Your task to perform on an android device: change the clock display to analog Image 0: 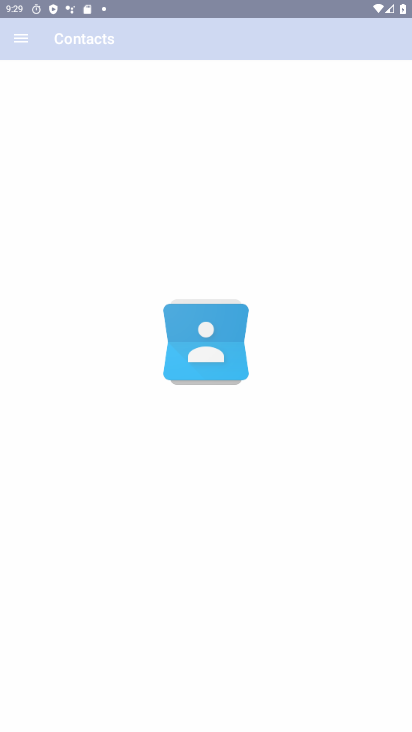
Step 0: drag from (332, 445) to (356, 211)
Your task to perform on an android device: change the clock display to analog Image 1: 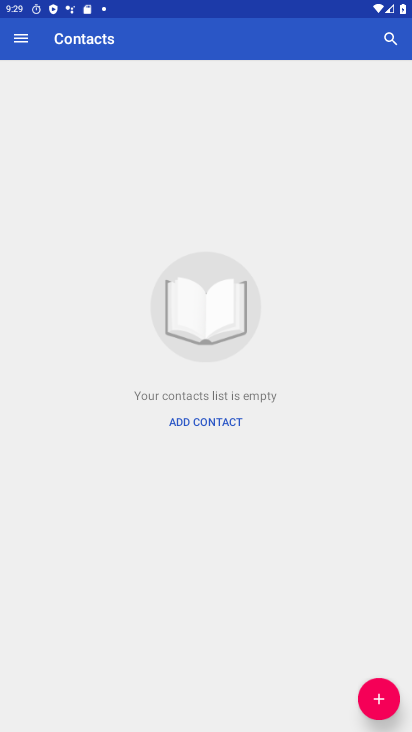
Step 1: press back button
Your task to perform on an android device: change the clock display to analog Image 2: 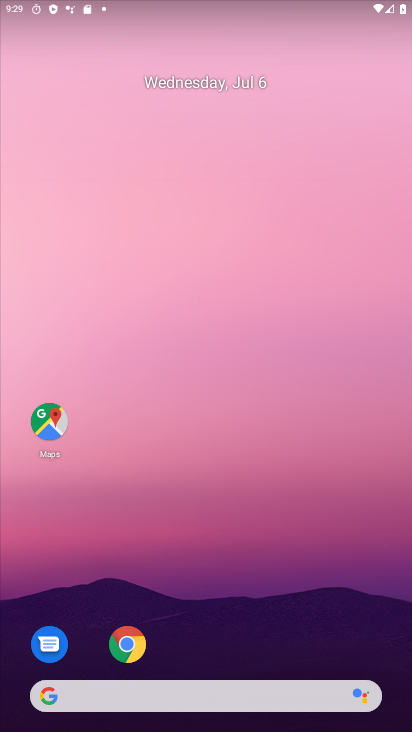
Step 2: drag from (264, 707) to (217, 143)
Your task to perform on an android device: change the clock display to analog Image 3: 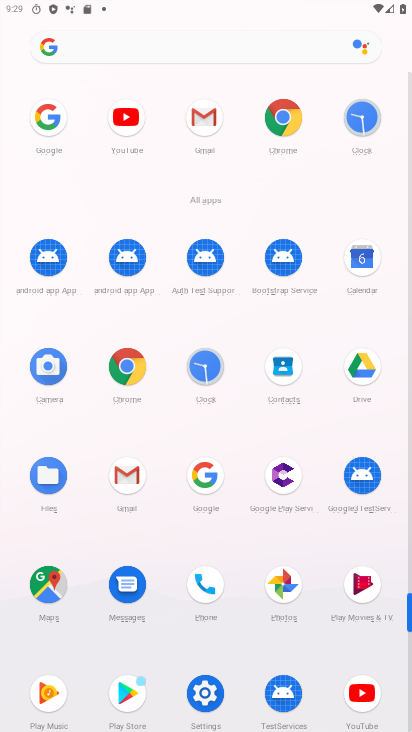
Step 3: click (204, 362)
Your task to perform on an android device: change the clock display to analog Image 4: 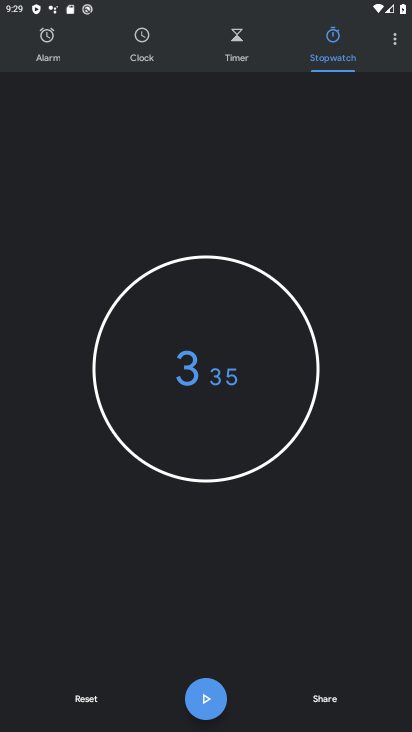
Step 4: press back button
Your task to perform on an android device: change the clock display to analog Image 5: 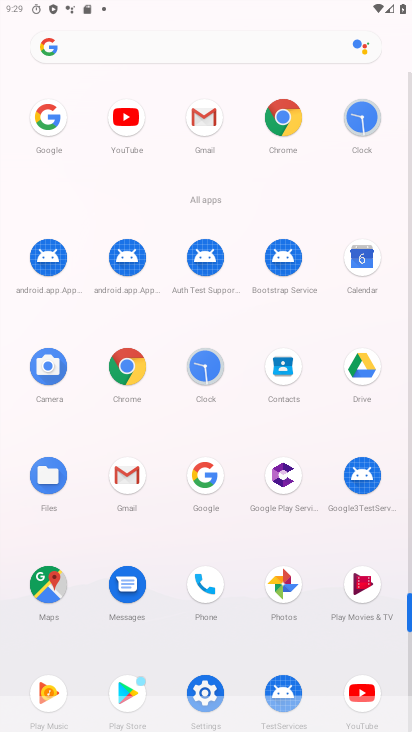
Step 5: click (200, 363)
Your task to perform on an android device: change the clock display to analog Image 6: 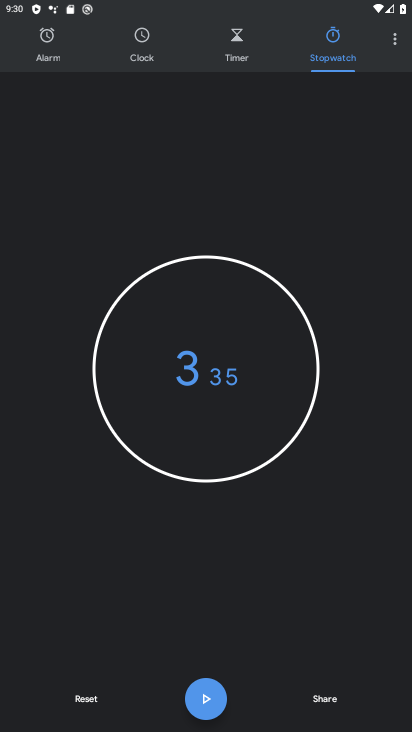
Step 6: click (392, 40)
Your task to perform on an android device: change the clock display to analog Image 7: 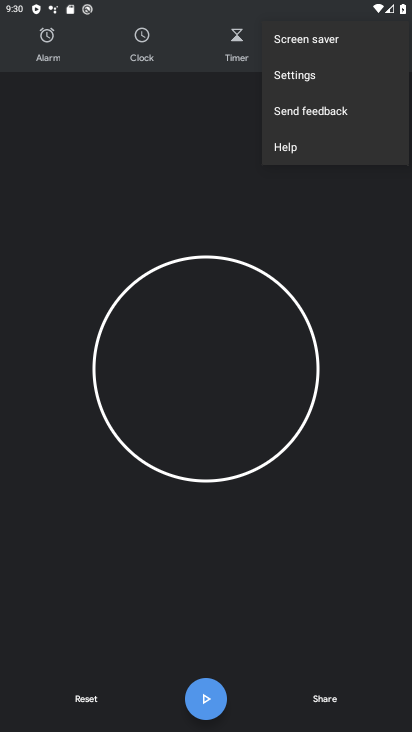
Step 7: click (315, 72)
Your task to perform on an android device: change the clock display to analog Image 8: 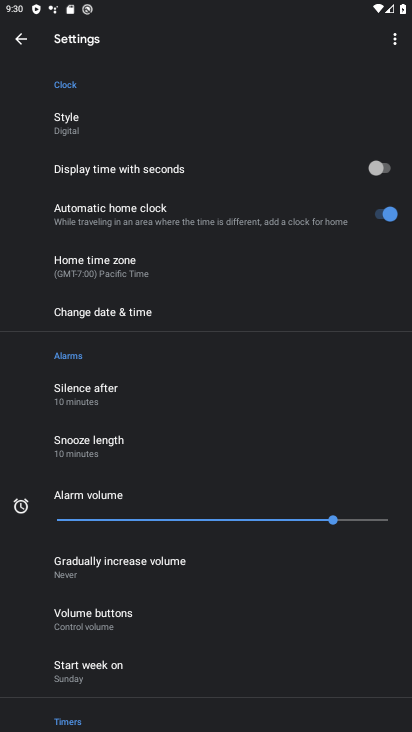
Step 8: click (65, 117)
Your task to perform on an android device: change the clock display to analog Image 9: 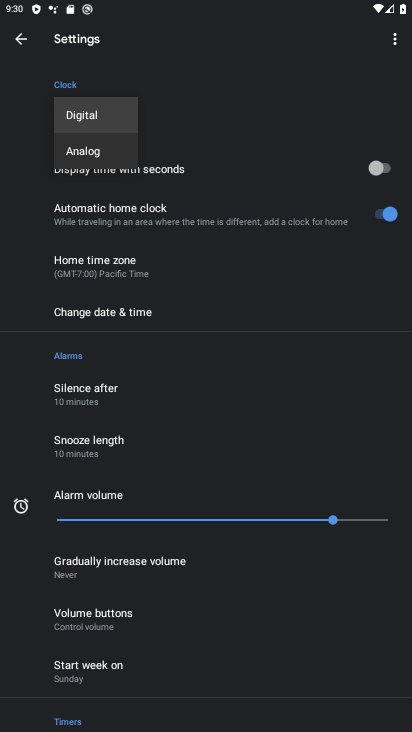
Step 9: click (81, 154)
Your task to perform on an android device: change the clock display to analog Image 10: 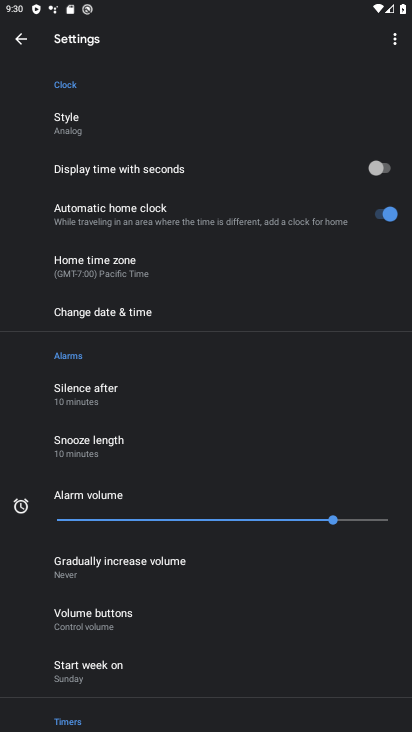
Step 10: press back button
Your task to perform on an android device: change the clock display to analog Image 11: 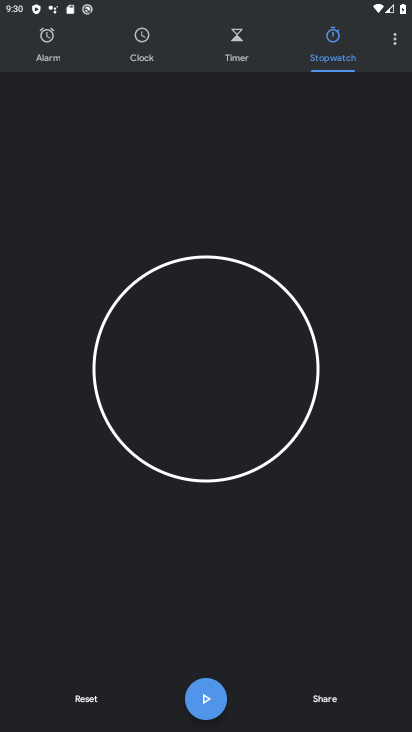
Step 11: press home button
Your task to perform on an android device: change the clock display to analog Image 12: 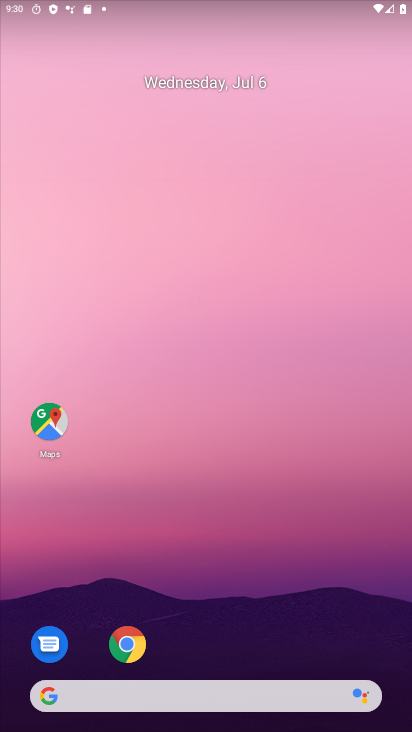
Step 12: drag from (346, 731) to (281, 234)
Your task to perform on an android device: change the clock display to analog Image 13: 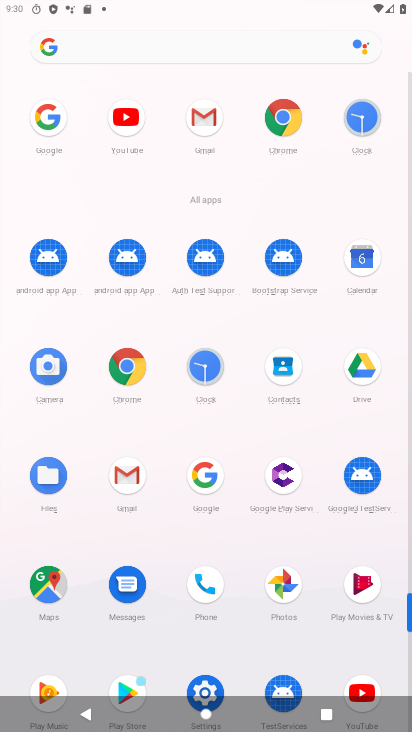
Step 13: click (227, 363)
Your task to perform on an android device: change the clock display to analog Image 14: 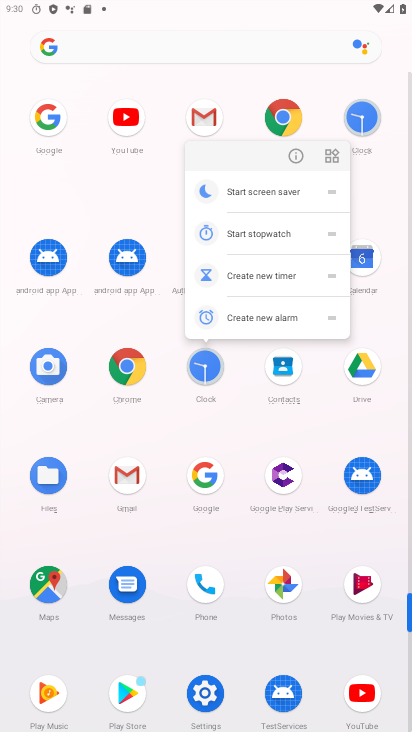
Step 14: click (211, 357)
Your task to perform on an android device: change the clock display to analog Image 15: 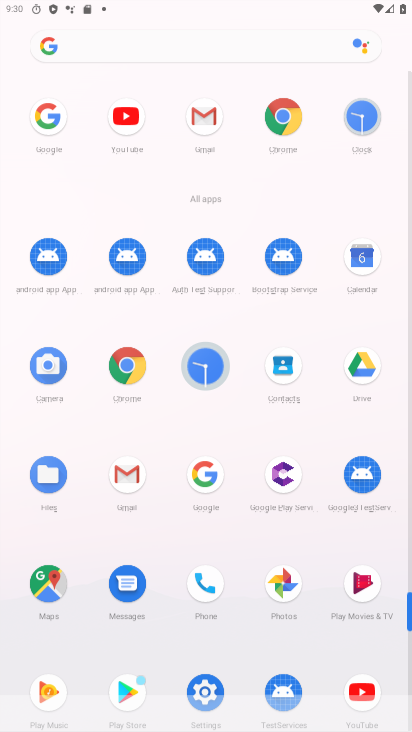
Step 15: click (210, 358)
Your task to perform on an android device: change the clock display to analog Image 16: 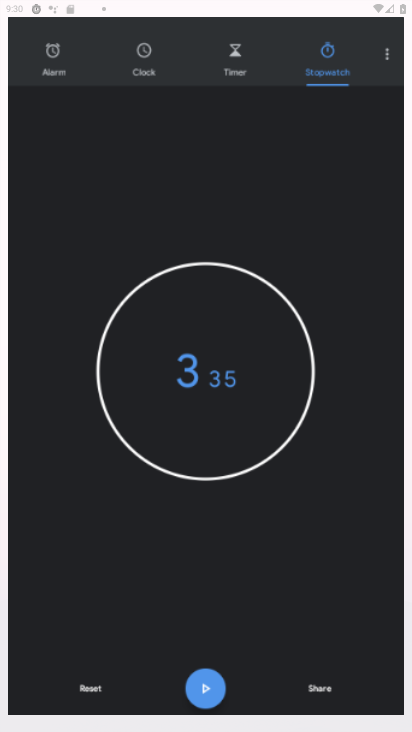
Step 16: click (208, 362)
Your task to perform on an android device: change the clock display to analog Image 17: 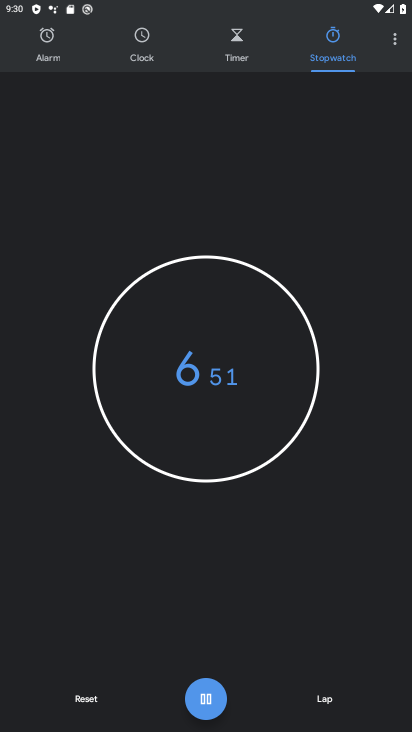
Step 17: click (207, 702)
Your task to perform on an android device: change the clock display to analog Image 18: 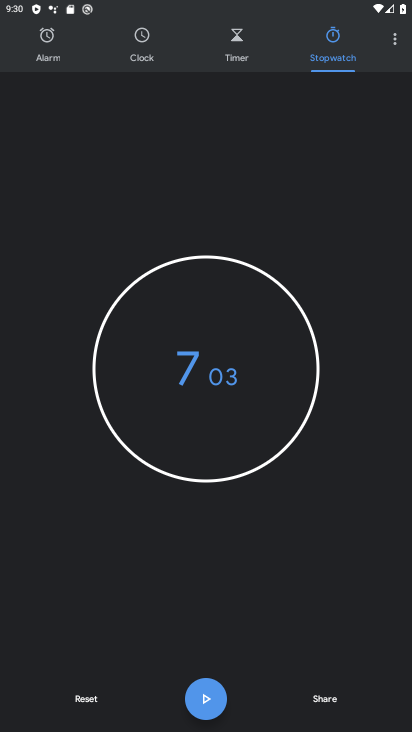
Step 18: click (397, 40)
Your task to perform on an android device: change the clock display to analog Image 19: 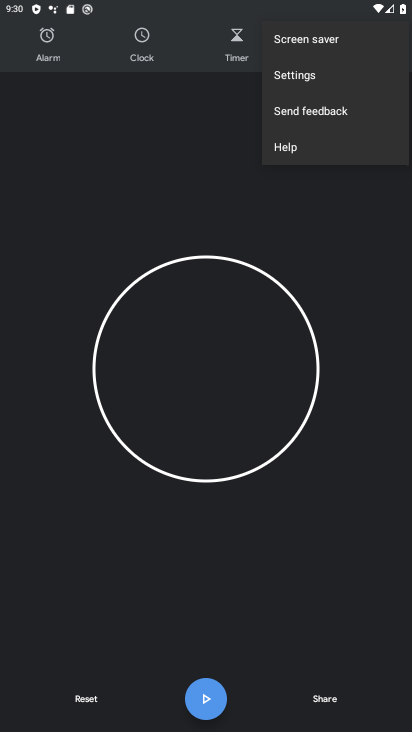
Step 19: click (315, 75)
Your task to perform on an android device: change the clock display to analog Image 20: 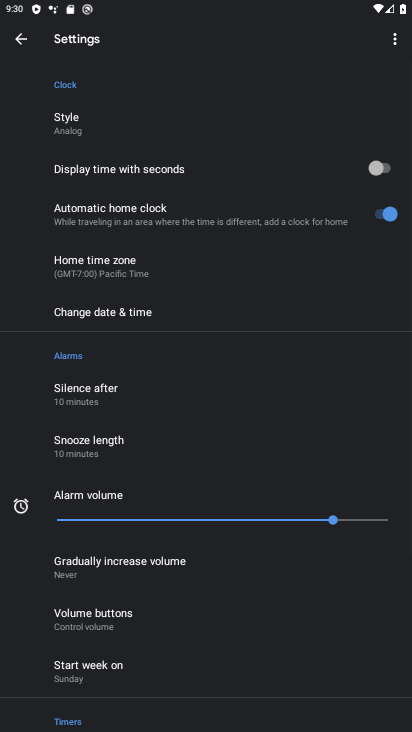
Step 20: click (59, 131)
Your task to perform on an android device: change the clock display to analog Image 21: 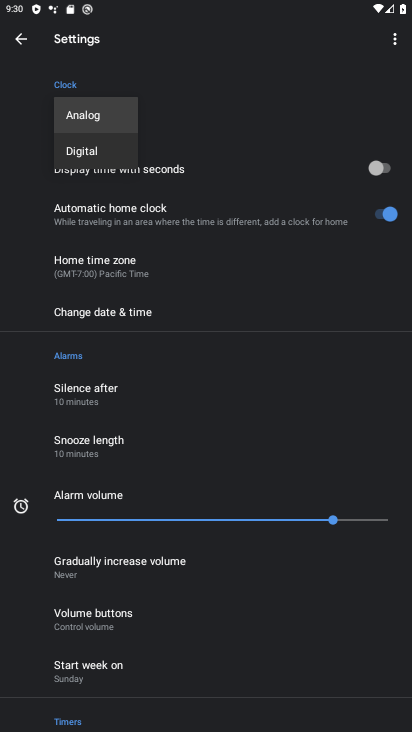
Step 21: click (82, 152)
Your task to perform on an android device: change the clock display to analog Image 22: 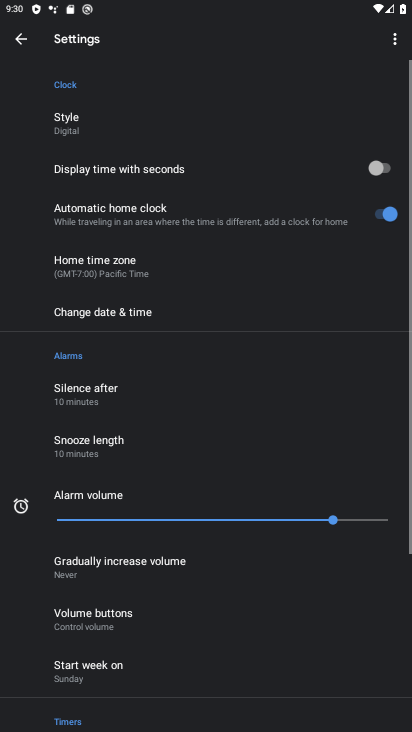
Step 22: click (78, 120)
Your task to perform on an android device: change the clock display to analog Image 23: 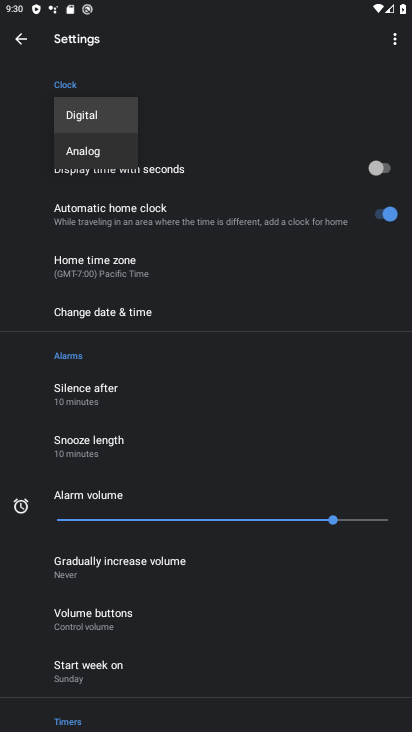
Step 23: click (84, 149)
Your task to perform on an android device: change the clock display to analog Image 24: 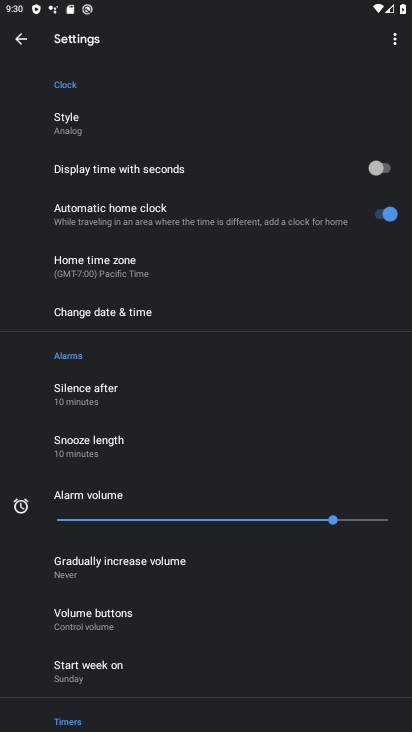
Step 24: task complete